Your task to perform on an android device: Open Google Chrome and click the shortcut for Amazon.com Image 0: 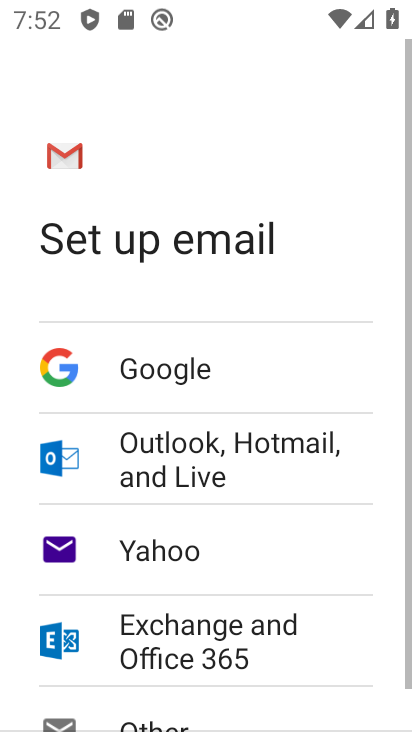
Step 0: press home button
Your task to perform on an android device: Open Google Chrome and click the shortcut for Amazon.com Image 1: 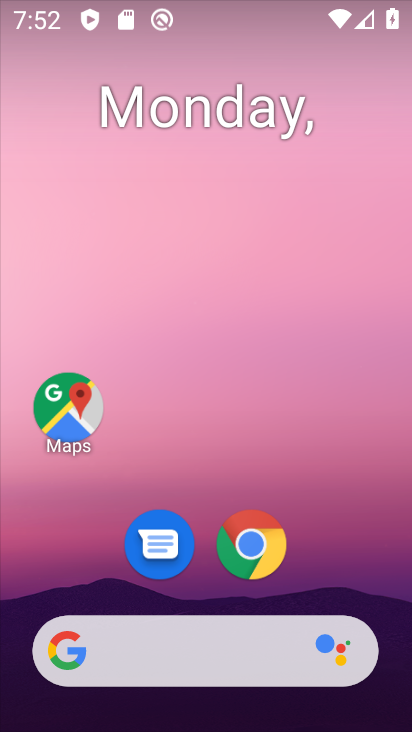
Step 1: click (229, 552)
Your task to perform on an android device: Open Google Chrome and click the shortcut for Amazon.com Image 2: 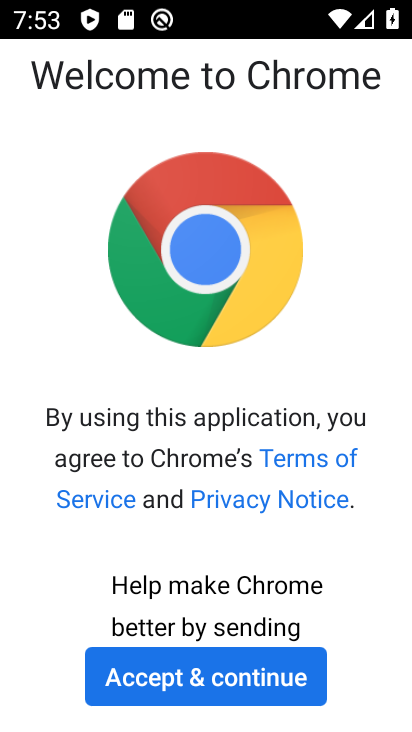
Step 2: click (229, 661)
Your task to perform on an android device: Open Google Chrome and click the shortcut for Amazon.com Image 3: 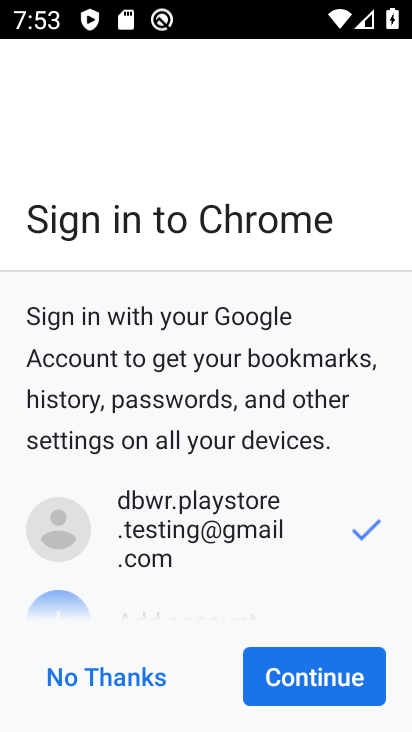
Step 3: click (249, 668)
Your task to perform on an android device: Open Google Chrome and click the shortcut for Amazon.com Image 4: 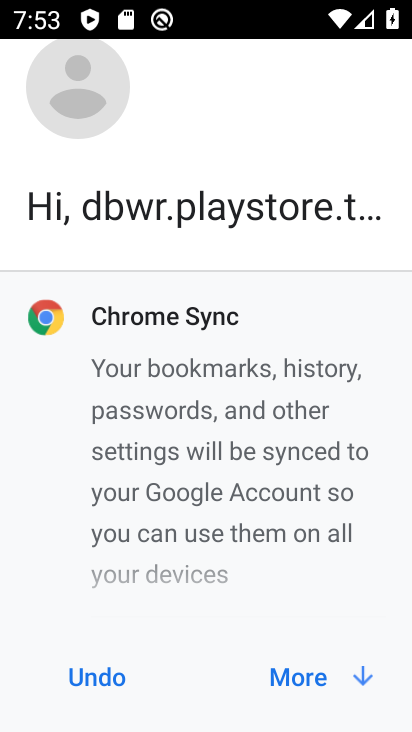
Step 4: click (333, 688)
Your task to perform on an android device: Open Google Chrome and click the shortcut for Amazon.com Image 5: 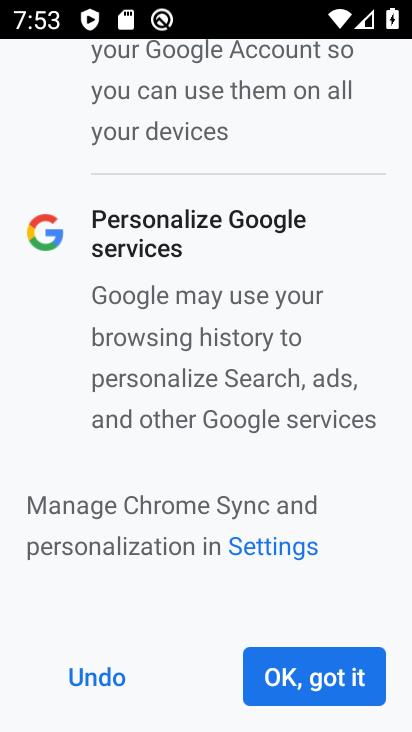
Step 5: click (327, 686)
Your task to perform on an android device: Open Google Chrome and click the shortcut for Amazon.com Image 6: 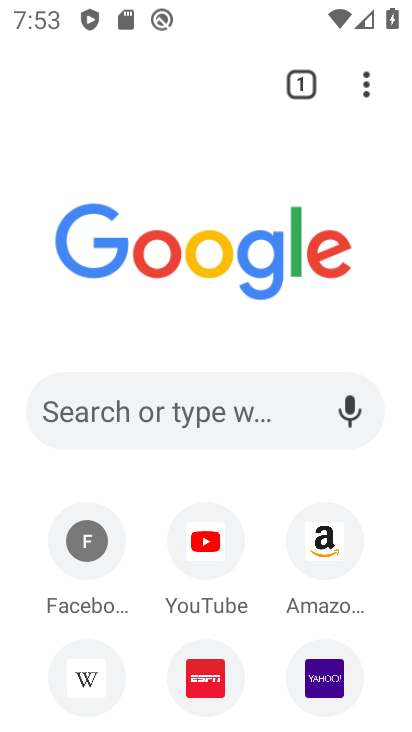
Step 6: click (315, 555)
Your task to perform on an android device: Open Google Chrome and click the shortcut for Amazon.com Image 7: 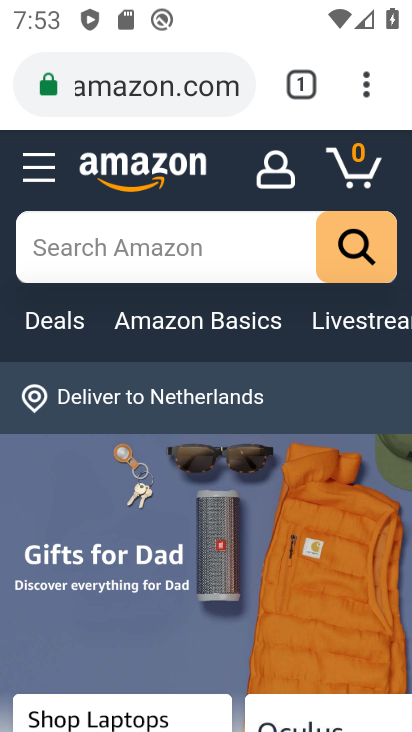
Step 7: task complete